Your task to perform on an android device: Search for Mexican restaurants on Maps Image 0: 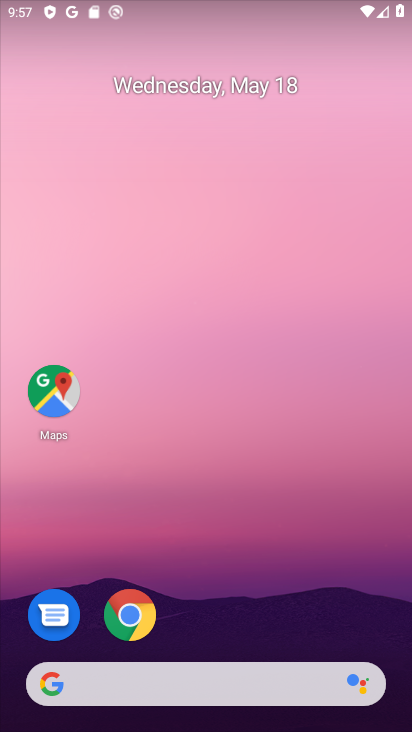
Step 0: click (60, 392)
Your task to perform on an android device: Search for Mexican restaurants on Maps Image 1: 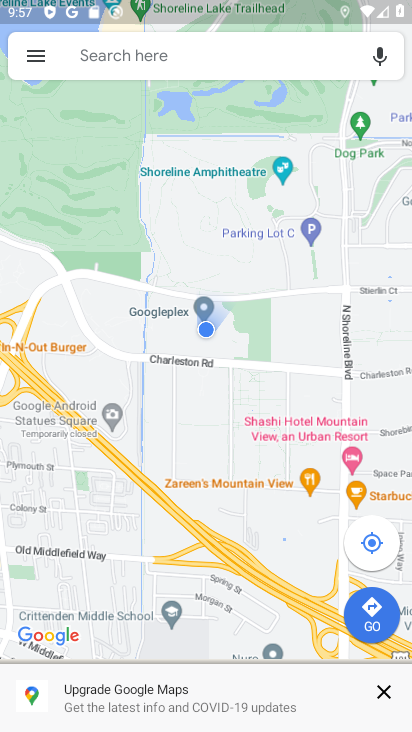
Step 1: click (159, 51)
Your task to perform on an android device: Search for Mexican restaurants on Maps Image 2: 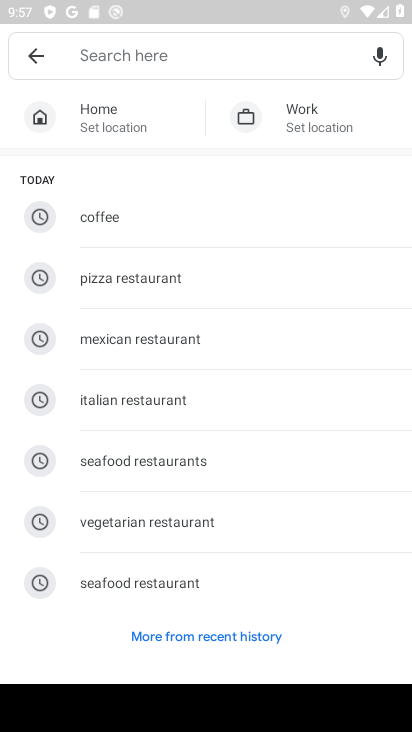
Step 2: click (138, 339)
Your task to perform on an android device: Search for Mexican restaurants on Maps Image 3: 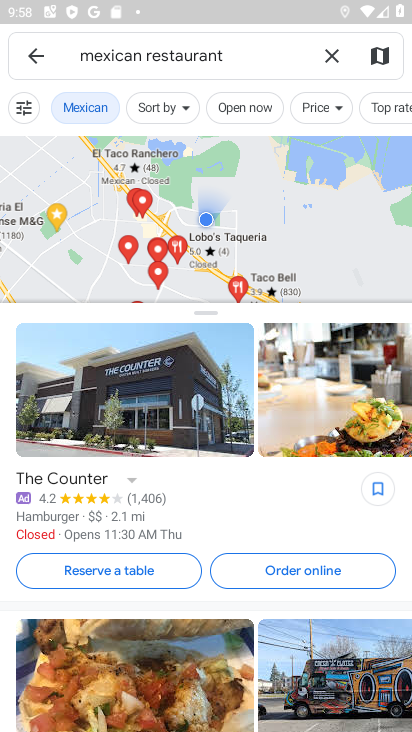
Step 3: task complete